Your task to perform on an android device: change notification settings in the gmail app Image 0: 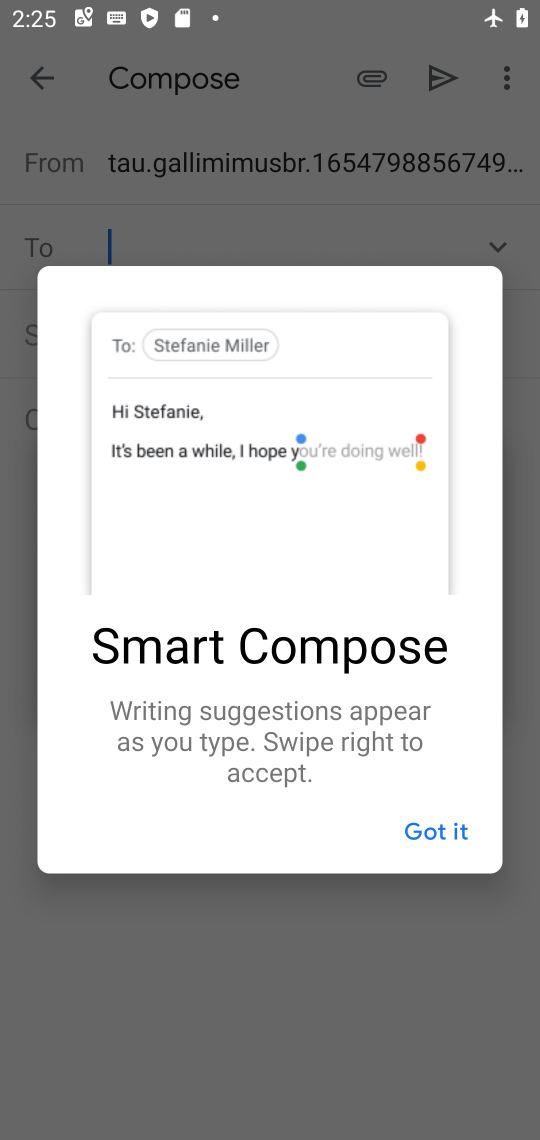
Step 0: press home button
Your task to perform on an android device: change notification settings in the gmail app Image 1: 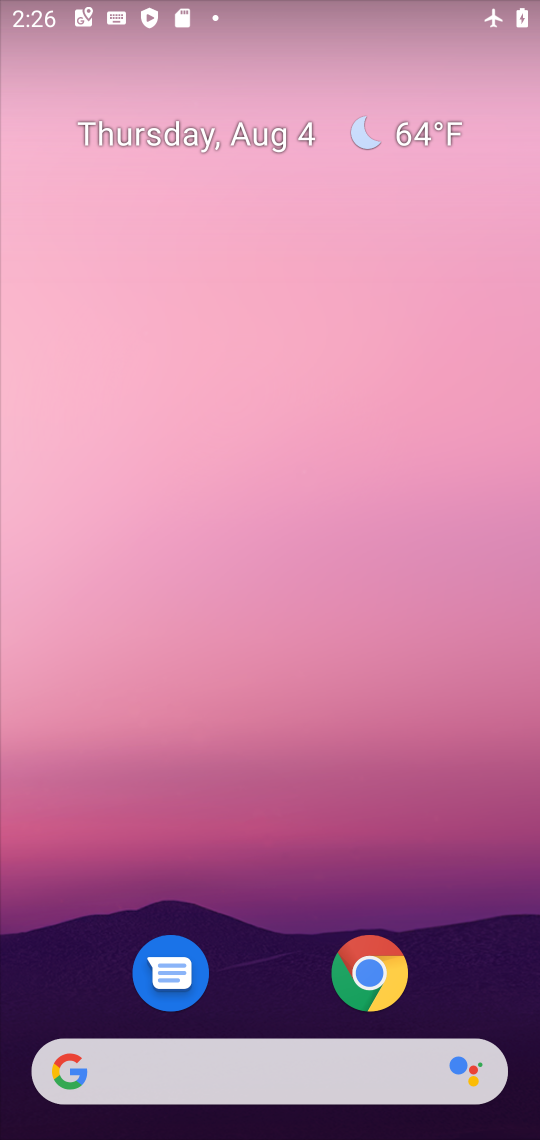
Step 1: drag from (259, 1022) to (506, 551)
Your task to perform on an android device: change notification settings in the gmail app Image 2: 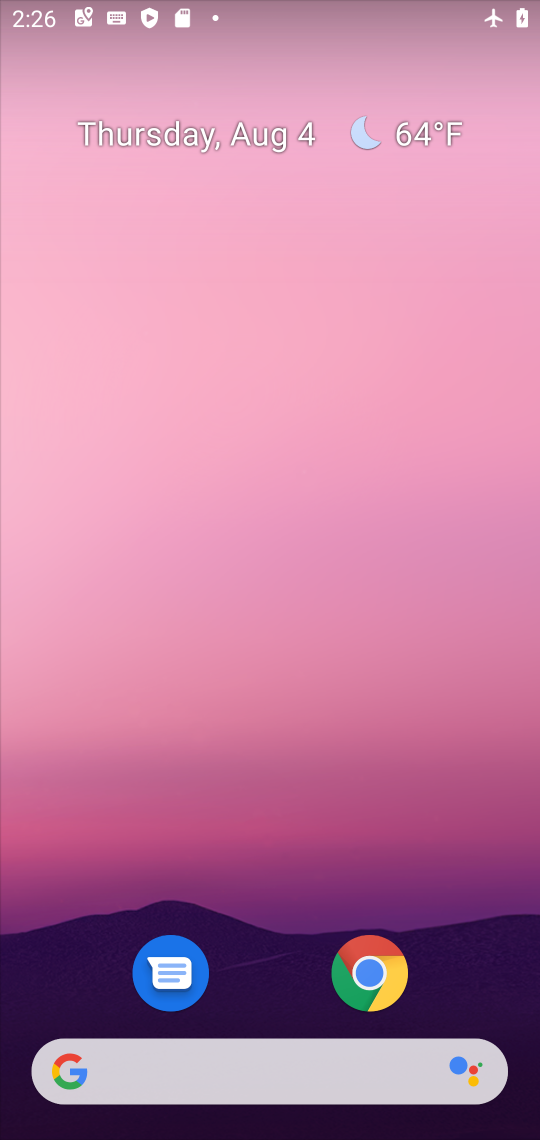
Step 2: drag from (213, 655) to (213, 17)
Your task to perform on an android device: change notification settings in the gmail app Image 3: 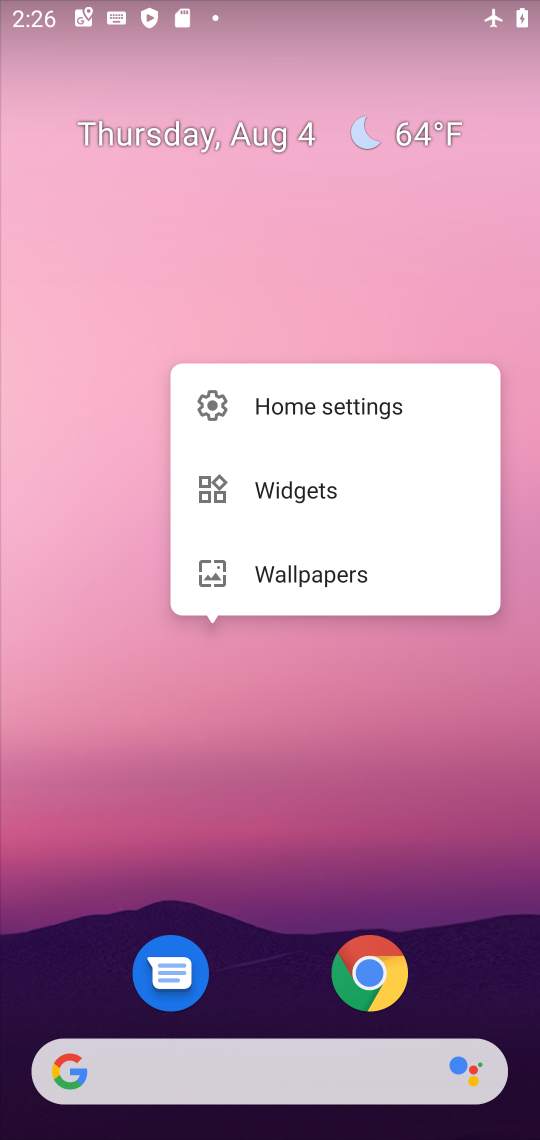
Step 3: click (257, 983)
Your task to perform on an android device: change notification settings in the gmail app Image 4: 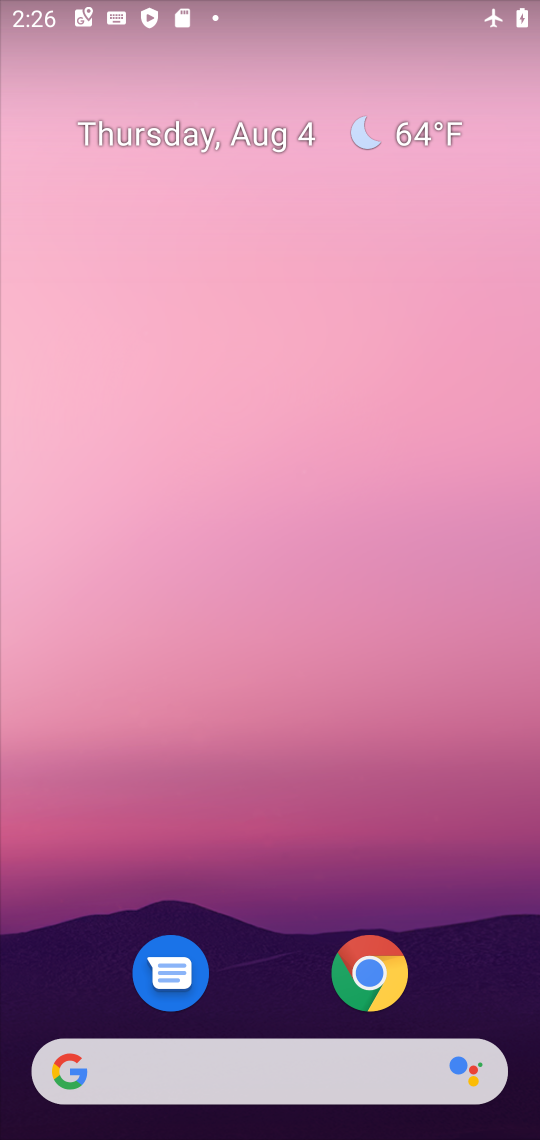
Step 4: drag from (285, 1032) to (298, 36)
Your task to perform on an android device: change notification settings in the gmail app Image 5: 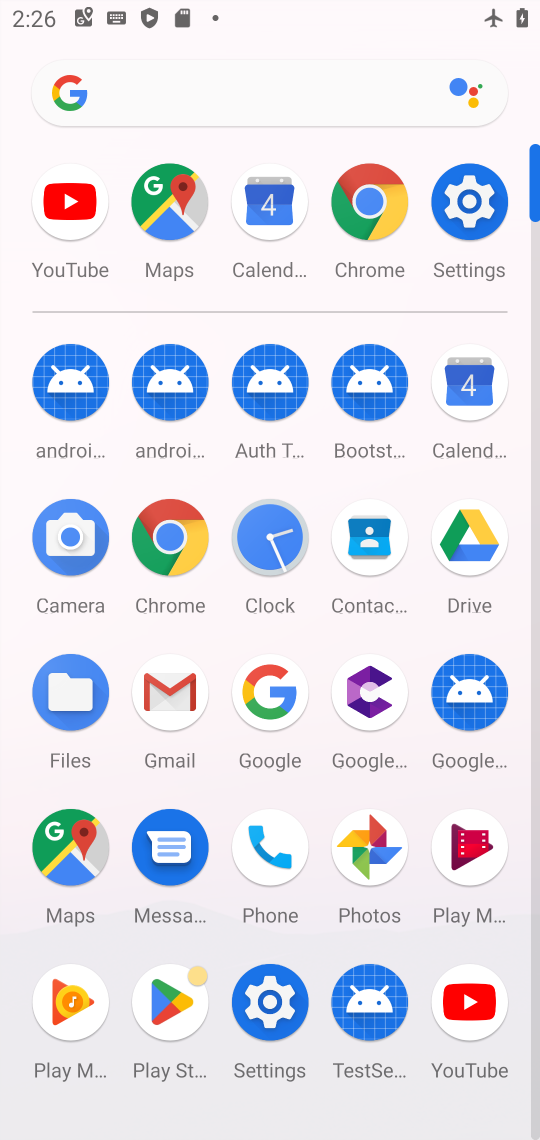
Step 5: click (179, 714)
Your task to perform on an android device: change notification settings in the gmail app Image 6: 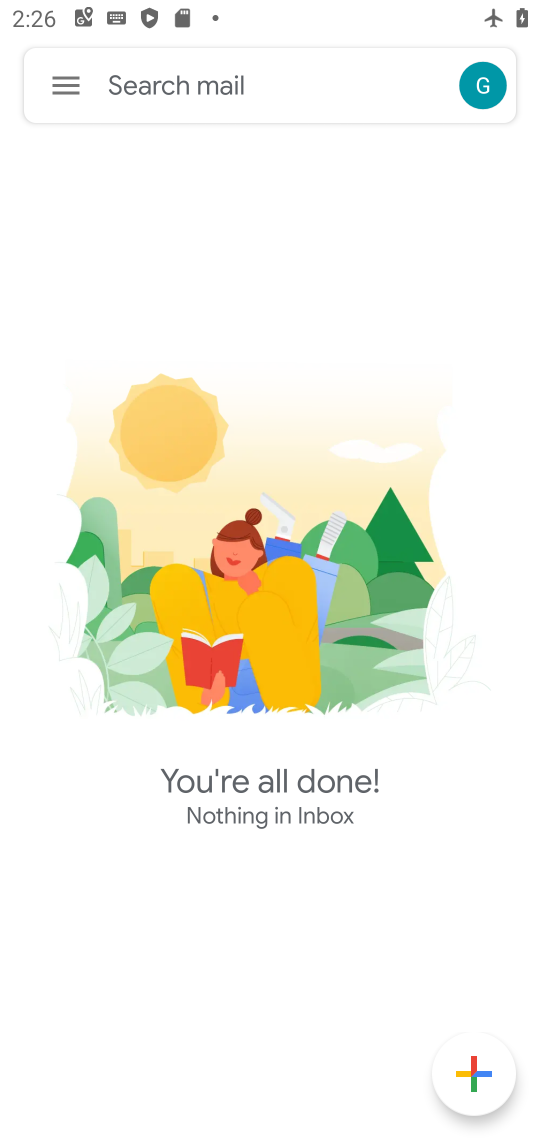
Step 6: click (80, 79)
Your task to perform on an android device: change notification settings in the gmail app Image 7: 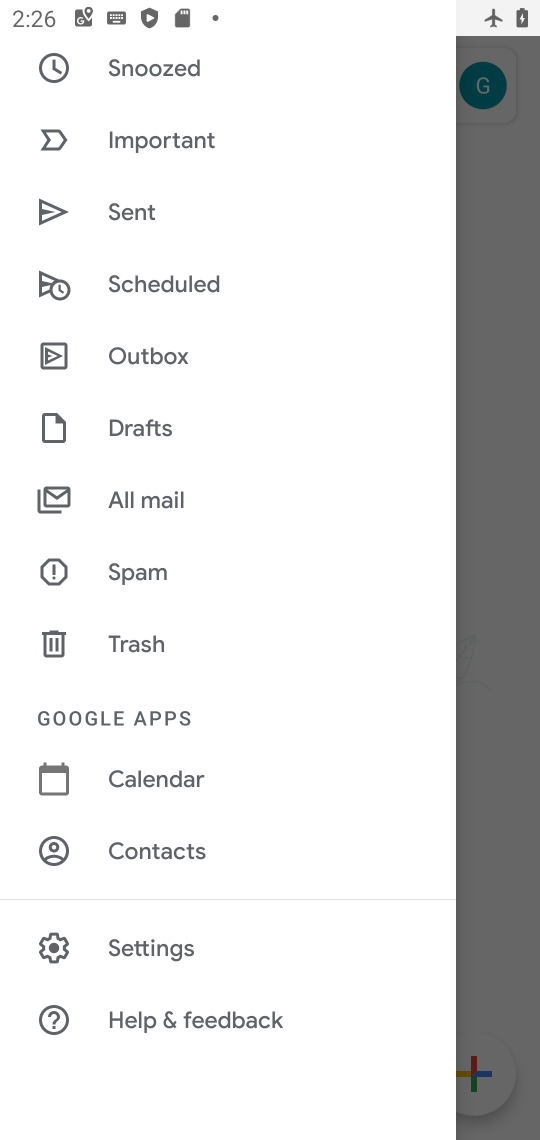
Step 7: click (139, 932)
Your task to perform on an android device: change notification settings in the gmail app Image 8: 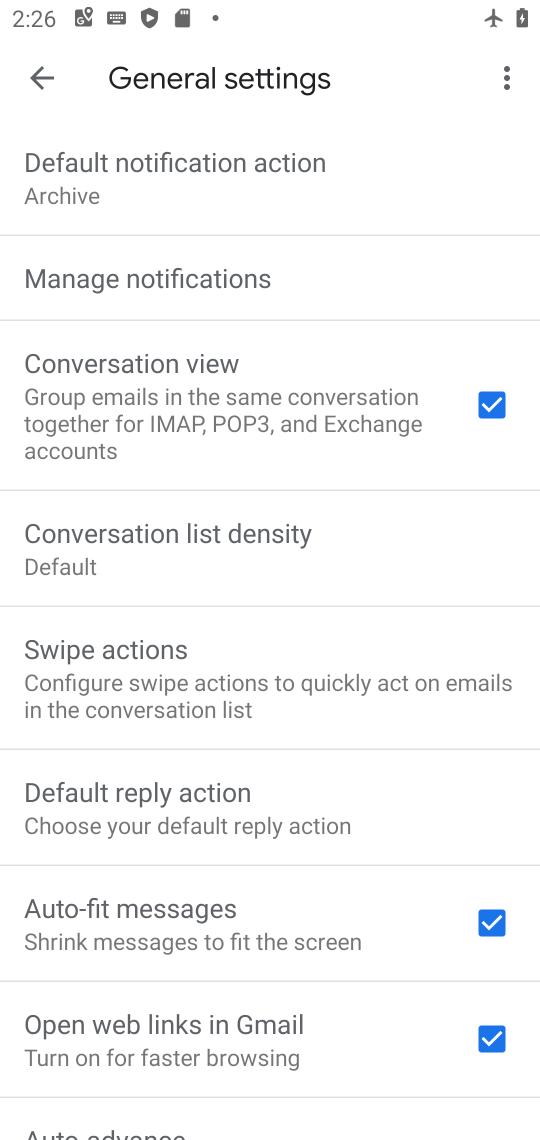
Step 8: click (270, 304)
Your task to perform on an android device: change notification settings in the gmail app Image 9: 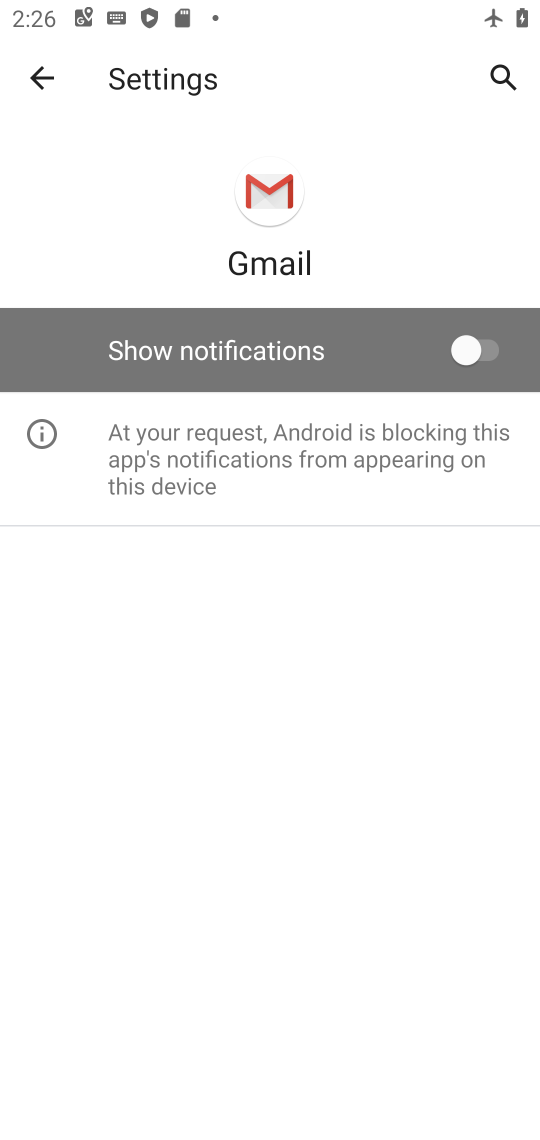
Step 9: click (445, 359)
Your task to perform on an android device: change notification settings in the gmail app Image 10: 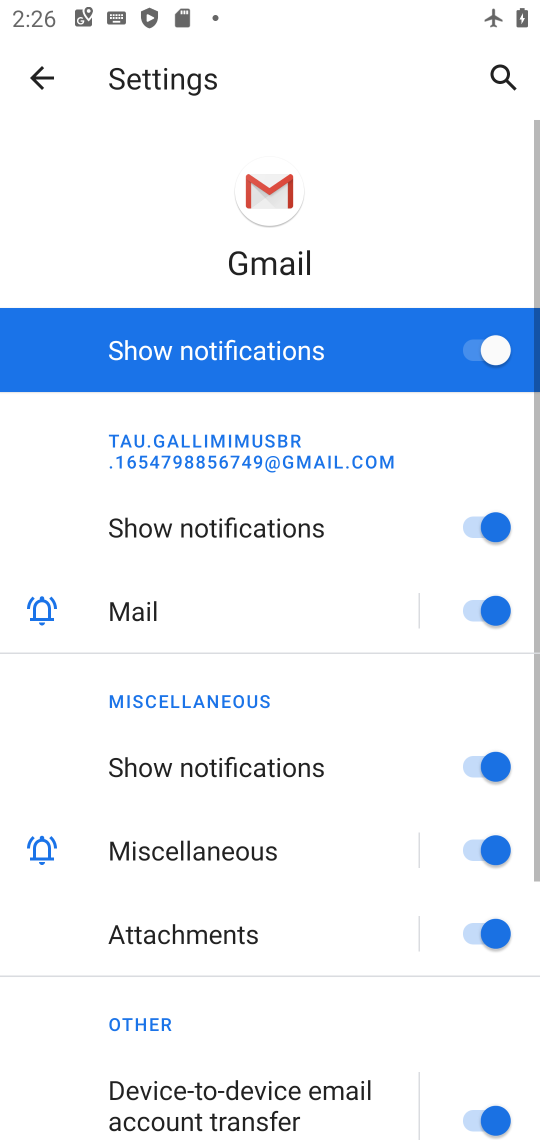
Step 10: task complete